Your task to perform on an android device: find snoozed emails in the gmail app Image 0: 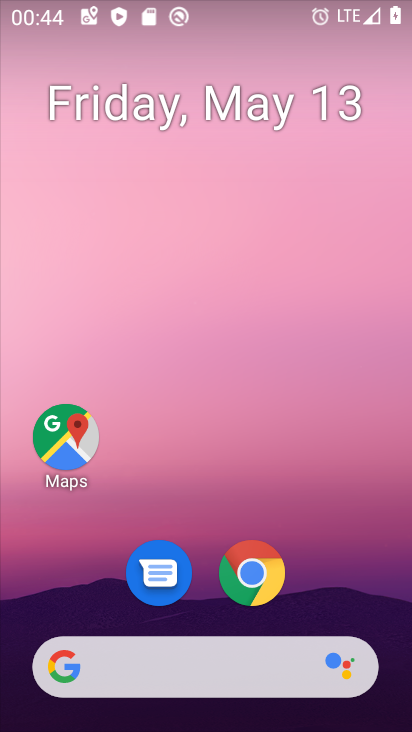
Step 0: drag from (243, 697) to (253, 11)
Your task to perform on an android device: find snoozed emails in the gmail app Image 1: 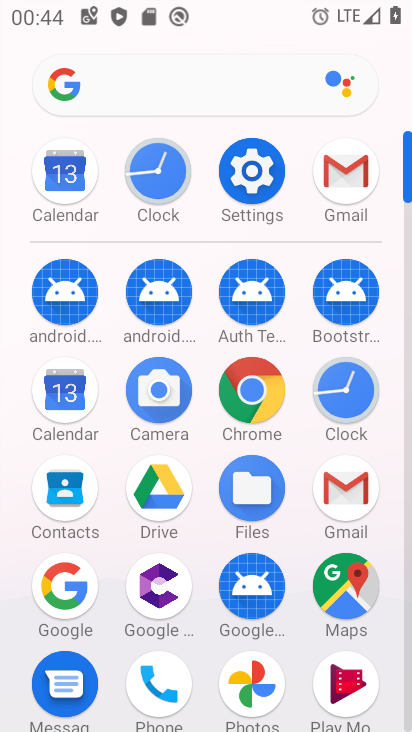
Step 1: click (349, 166)
Your task to perform on an android device: find snoozed emails in the gmail app Image 2: 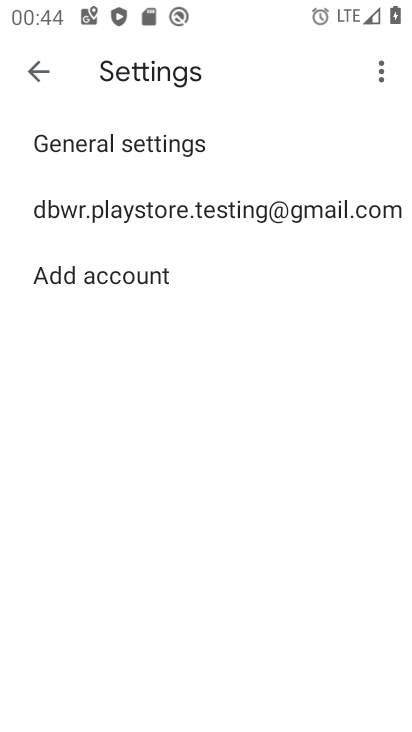
Step 2: click (144, 216)
Your task to perform on an android device: find snoozed emails in the gmail app Image 3: 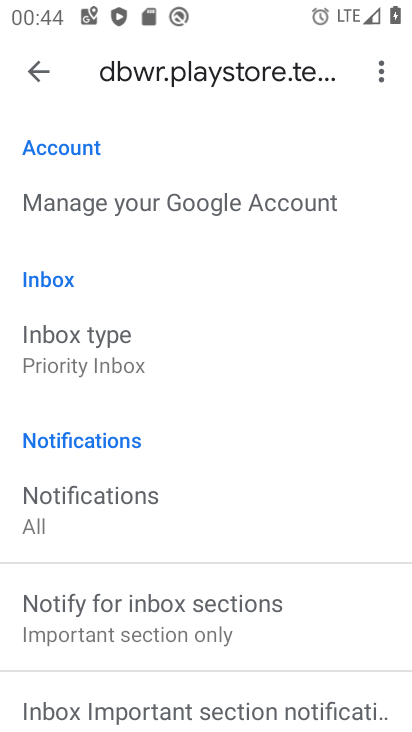
Step 3: click (39, 72)
Your task to perform on an android device: find snoozed emails in the gmail app Image 4: 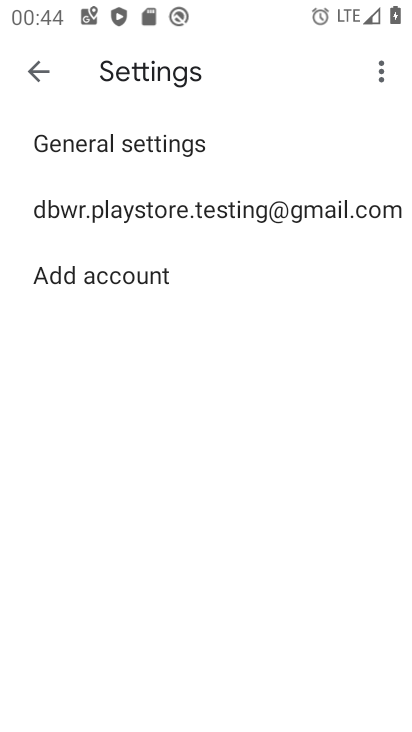
Step 4: click (39, 72)
Your task to perform on an android device: find snoozed emails in the gmail app Image 5: 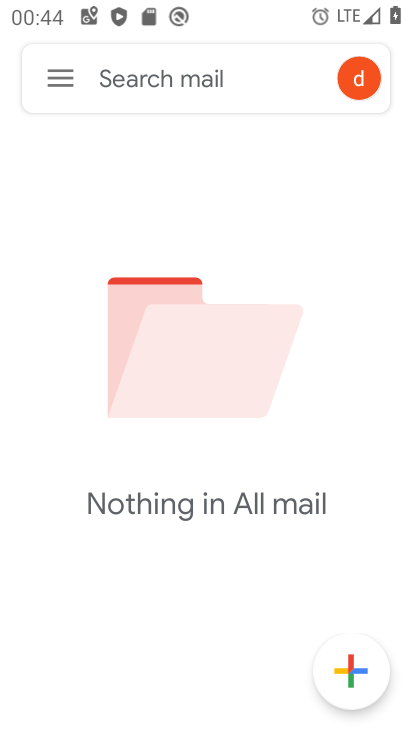
Step 5: click (39, 71)
Your task to perform on an android device: find snoozed emails in the gmail app Image 6: 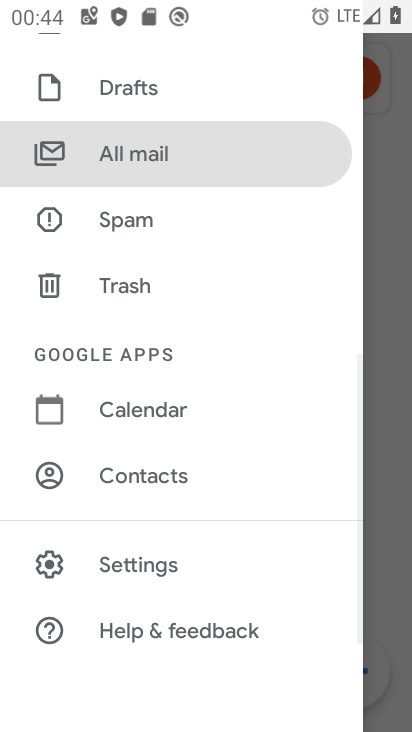
Step 6: drag from (233, 177) to (239, 672)
Your task to perform on an android device: find snoozed emails in the gmail app Image 7: 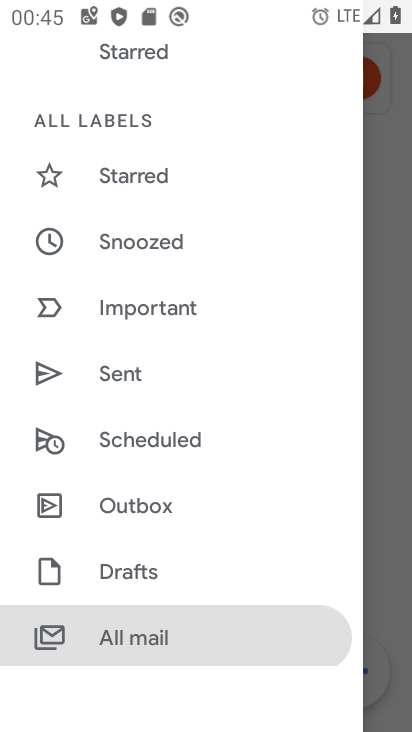
Step 7: click (160, 239)
Your task to perform on an android device: find snoozed emails in the gmail app Image 8: 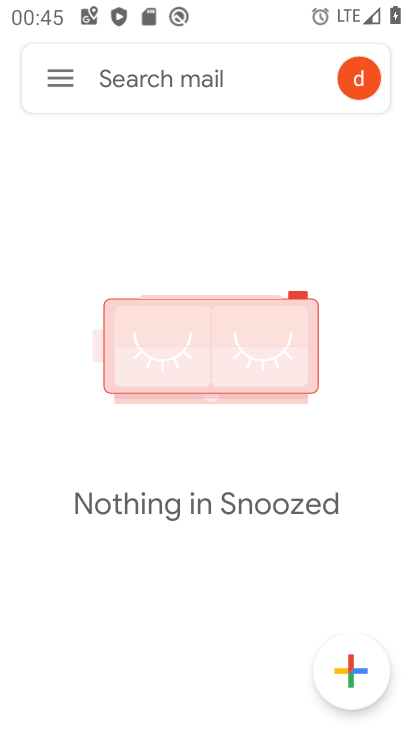
Step 8: task complete